Your task to perform on an android device: toggle javascript in the chrome app Image 0: 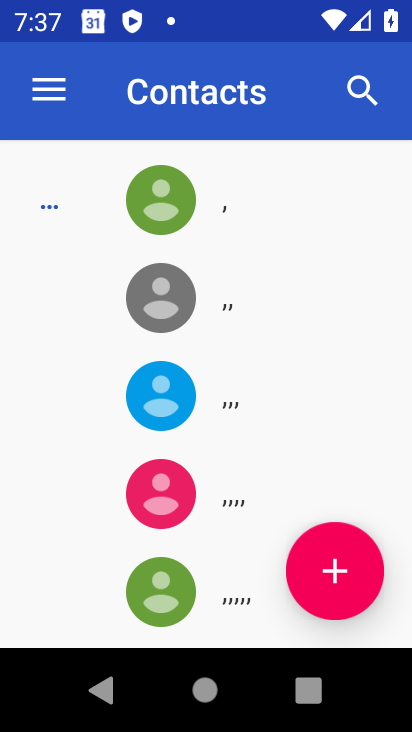
Step 0: press home button
Your task to perform on an android device: toggle javascript in the chrome app Image 1: 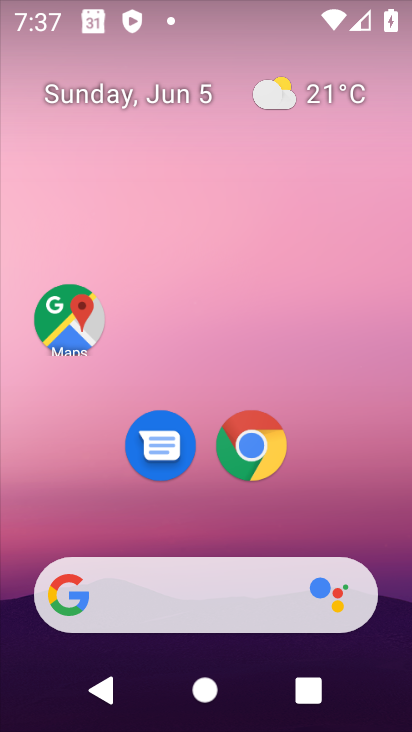
Step 1: click (255, 425)
Your task to perform on an android device: toggle javascript in the chrome app Image 2: 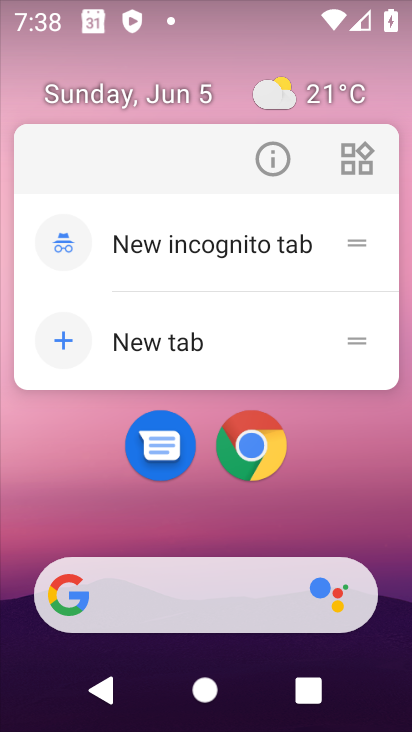
Step 2: click (53, 477)
Your task to perform on an android device: toggle javascript in the chrome app Image 3: 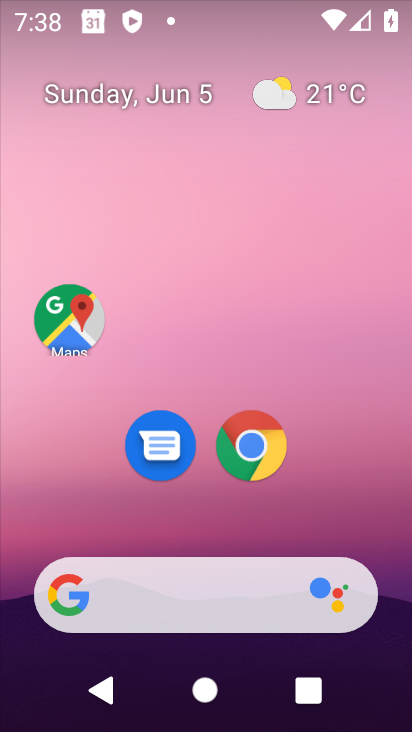
Step 3: click (265, 459)
Your task to perform on an android device: toggle javascript in the chrome app Image 4: 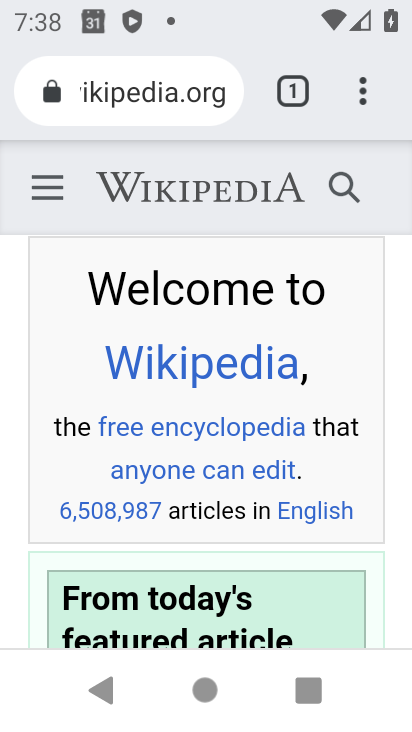
Step 4: drag from (369, 98) to (237, 465)
Your task to perform on an android device: toggle javascript in the chrome app Image 5: 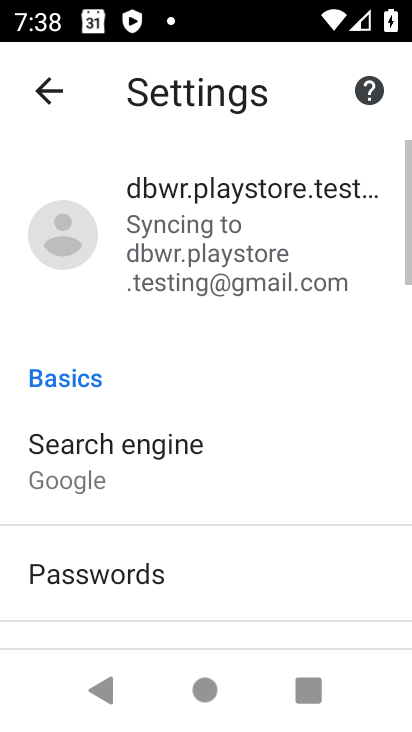
Step 5: drag from (308, 483) to (258, 119)
Your task to perform on an android device: toggle javascript in the chrome app Image 6: 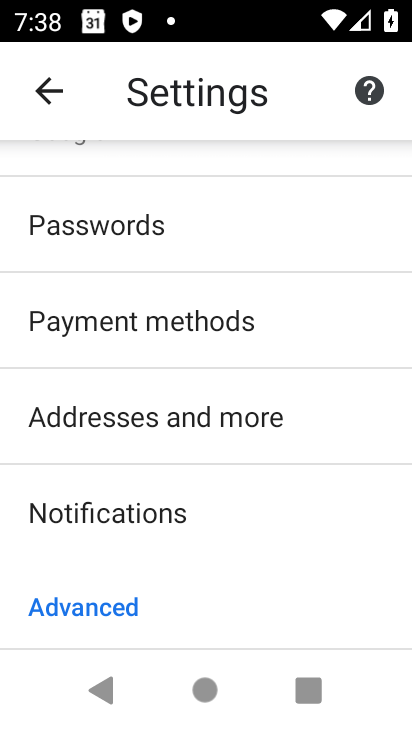
Step 6: drag from (307, 571) to (236, 244)
Your task to perform on an android device: toggle javascript in the chrome app Image 7: 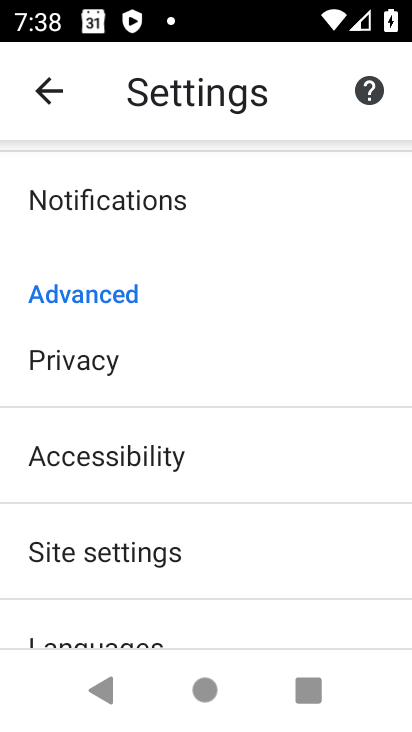
Step 7: click (158, 541)
Your task to perform on an android device: toggle javascript in the chrome app Image 8: 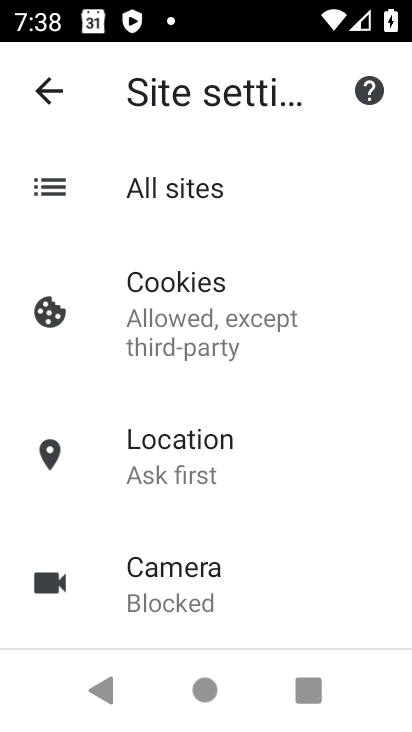
Step 8: drag from (315, 603) to (234, 120)
Your task to perform on an android device: toggle javascript in the chrome app Image 9: 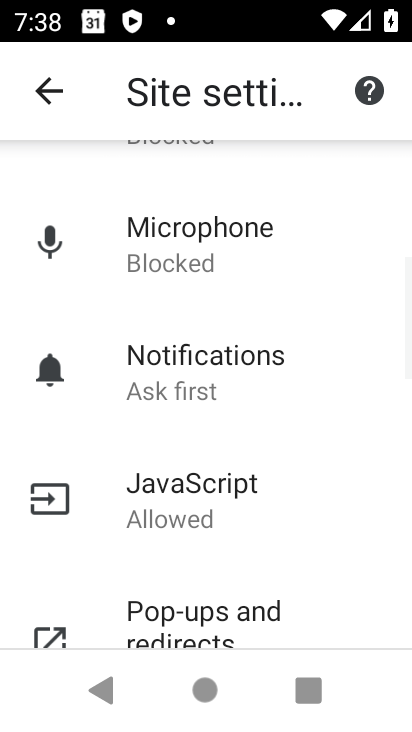
Step 9: click (207, 488)
Your task to perform on an android device: toggle javascript in the chrome app Image 10: 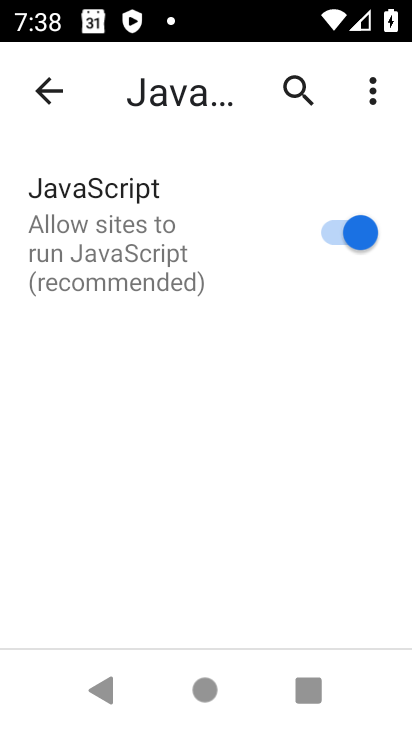
Step 10: click (334, 236)
Your task to perform on an android device: toggle javascript in the chrome app Image 11: 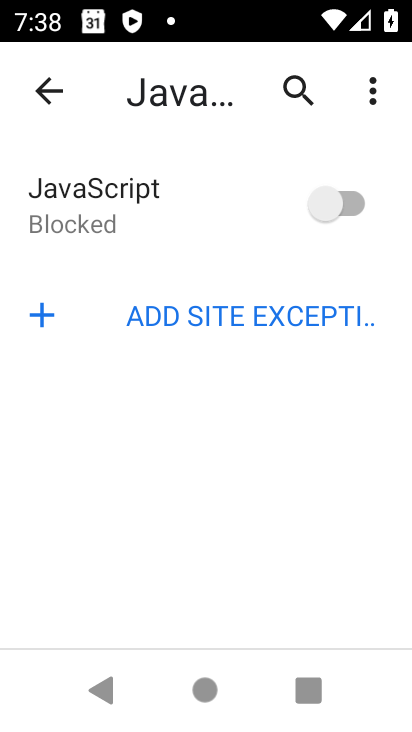
Step 11: task complete